Your task to perform on an android device: set default search engine in the chrome app Image 0: 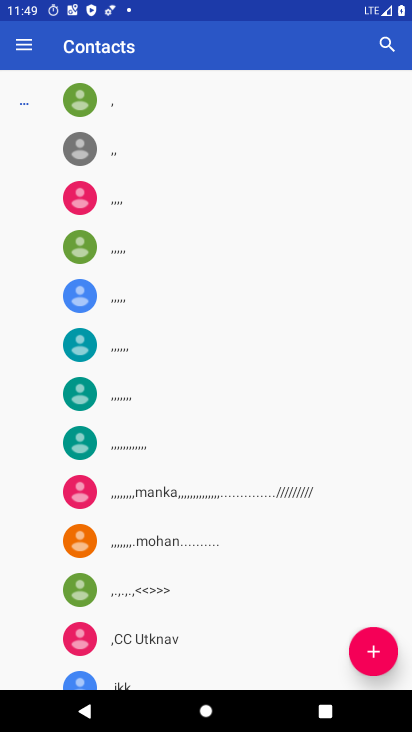
Step 0: press home button
Your task to perform on an android device: set default search engine in the chrome app Image 1: 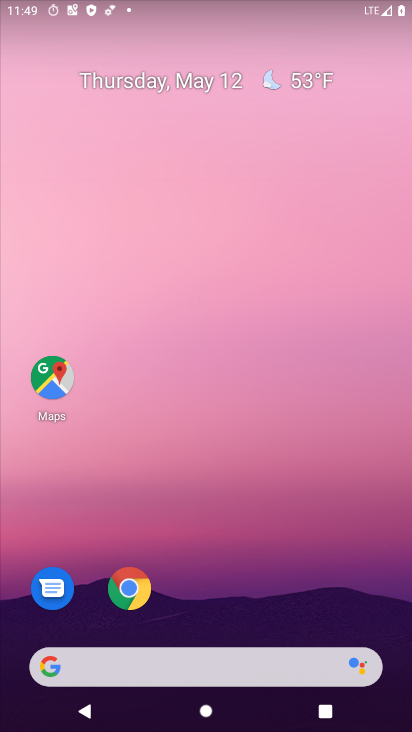
Step 1: click (134, 592)
Your task to perform on an android device: set default search engine in the chrome app Image 2: 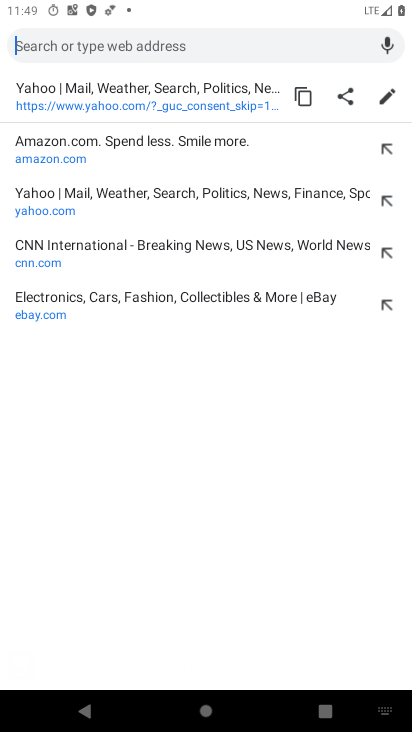
Step 2: press back button
Your task to perform on an android device: set default search engine in the chrome app Image 3: 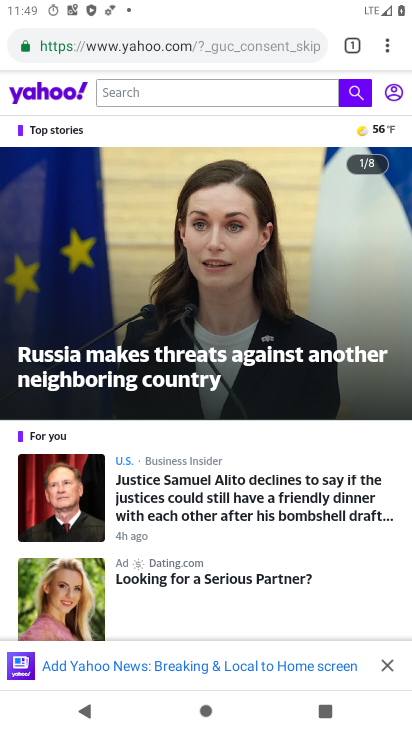
Step 3: click (395, 47)
Your task to perform on an android device: set default search engine in the chrome app Image 4: 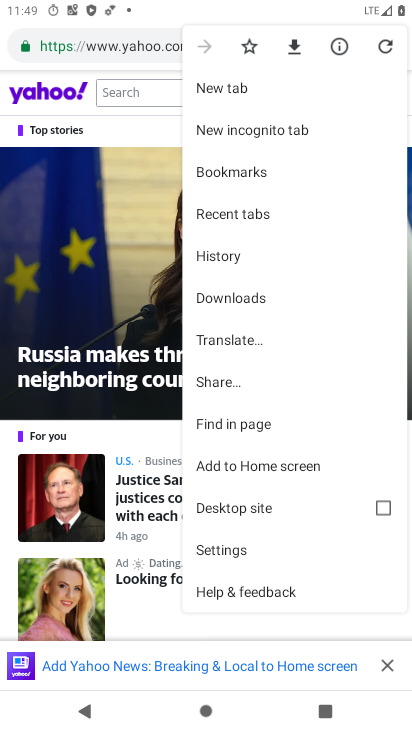
Step 4: click (238, 558)
Your task to perform on an android device: set default search engine in the chrome app Image 5: 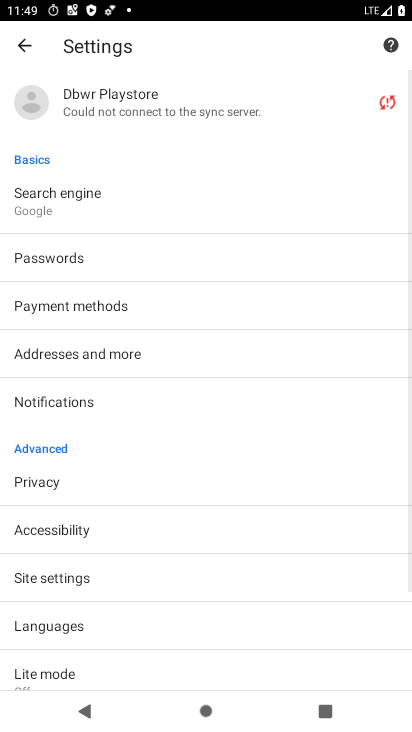
Step 5: click (116, 194)
Your task to perform on an android device: set default search engine in the chrome app Image 6: 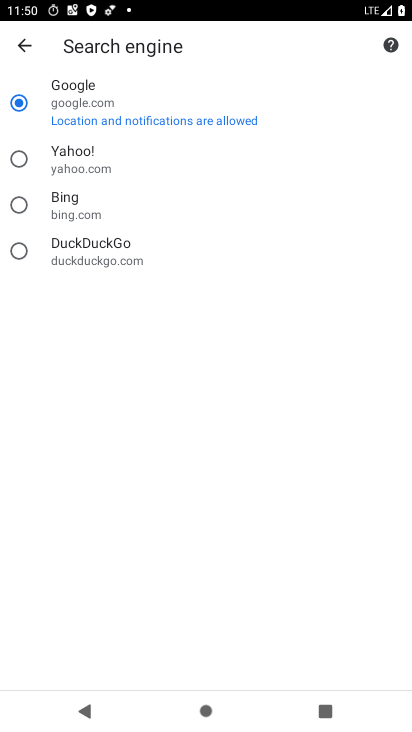
Step 6: task complete